Your task to perform on an android device: turn on airplane mode Image 0: 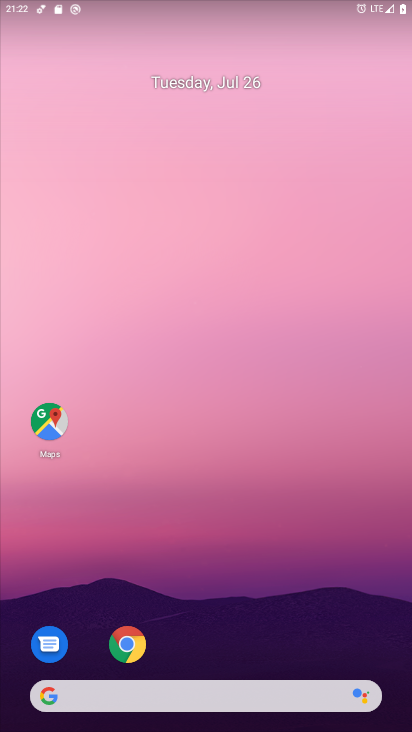
Step 0: drag from (254, 655) to (194, 169)
Your task to perform on an android device: turn on airplane mode Image 1: 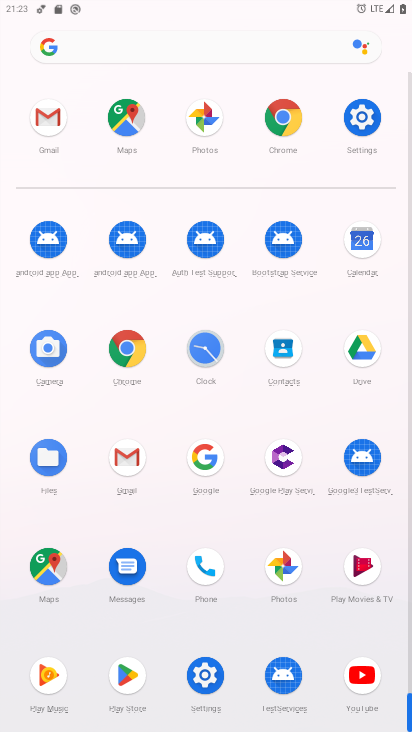
Step 1: click (370, 107)
Your task to perform on an android device: turn on airplane mode Image 2: 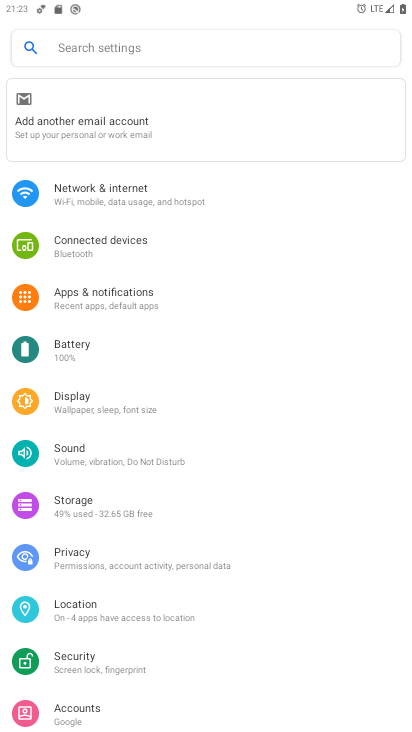
Step 2: click (127, 186)
Your task to perform on an android device: turn on airplane mode Image 3: 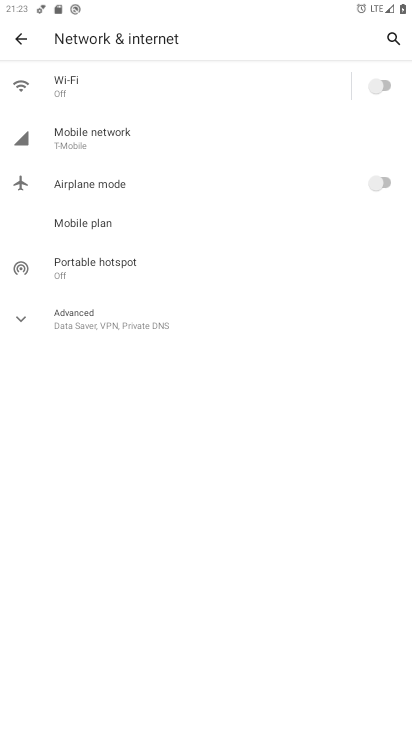
Step 3: click (392, 182)
Your task to perform on an android device: turn on airplane mode Image 4: 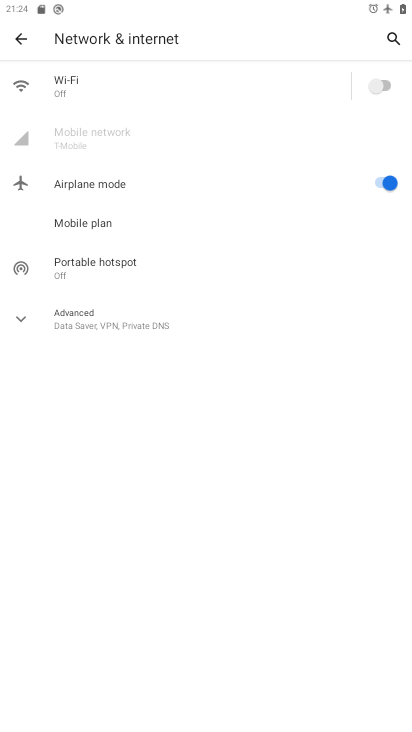
Step 4: task complete